Your task to perform on an android device: check storage Image 0: 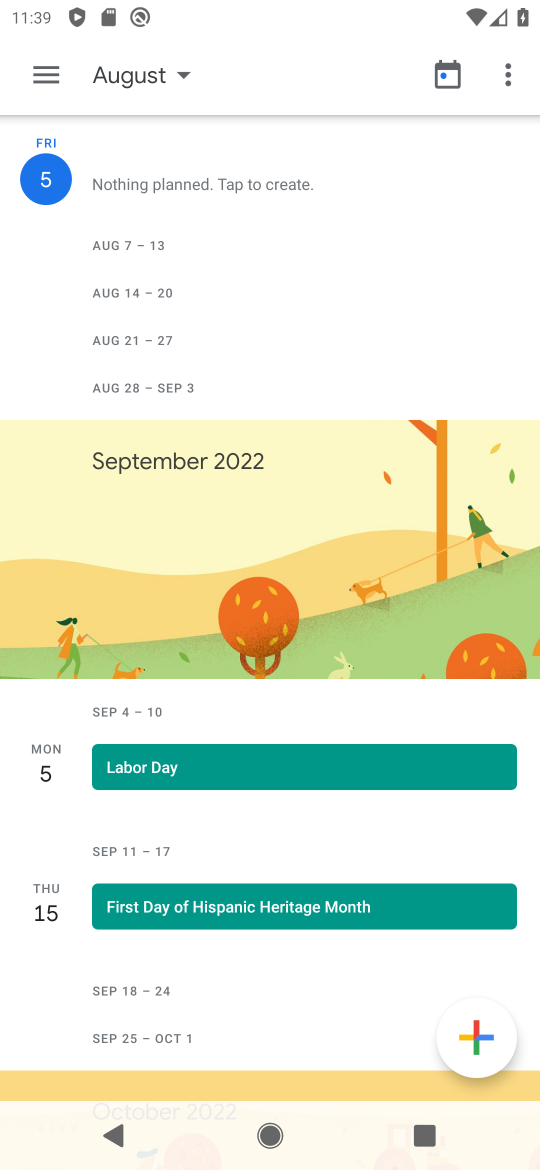
Step 0: press home button
Your task to perform on an android device: check storage Image 1: 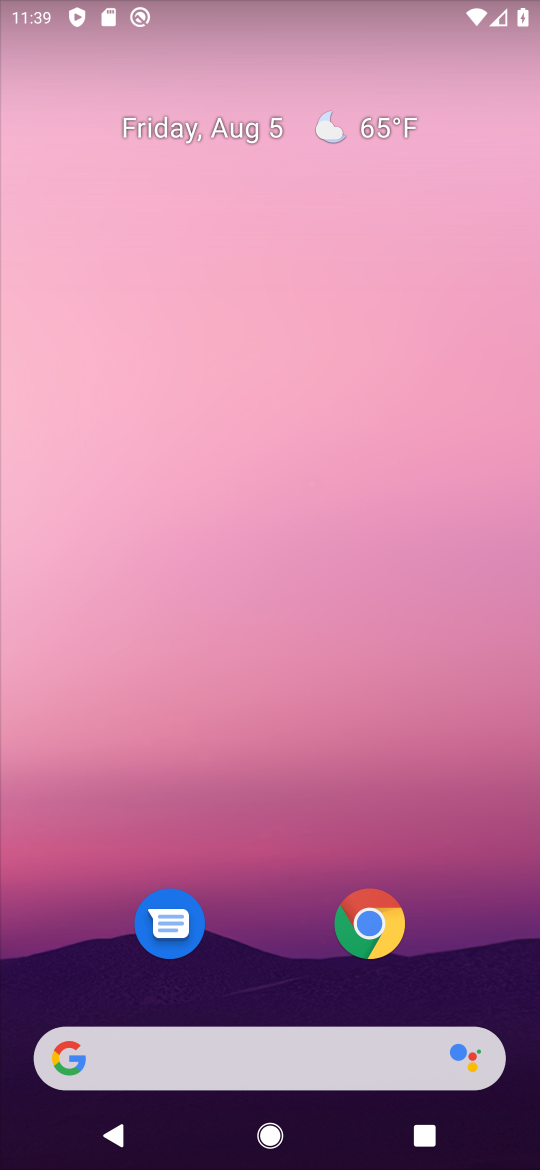
Step 1: drag from (484, 992) to (257, 154)
Your task to perform on an android device: check storage Image 2: 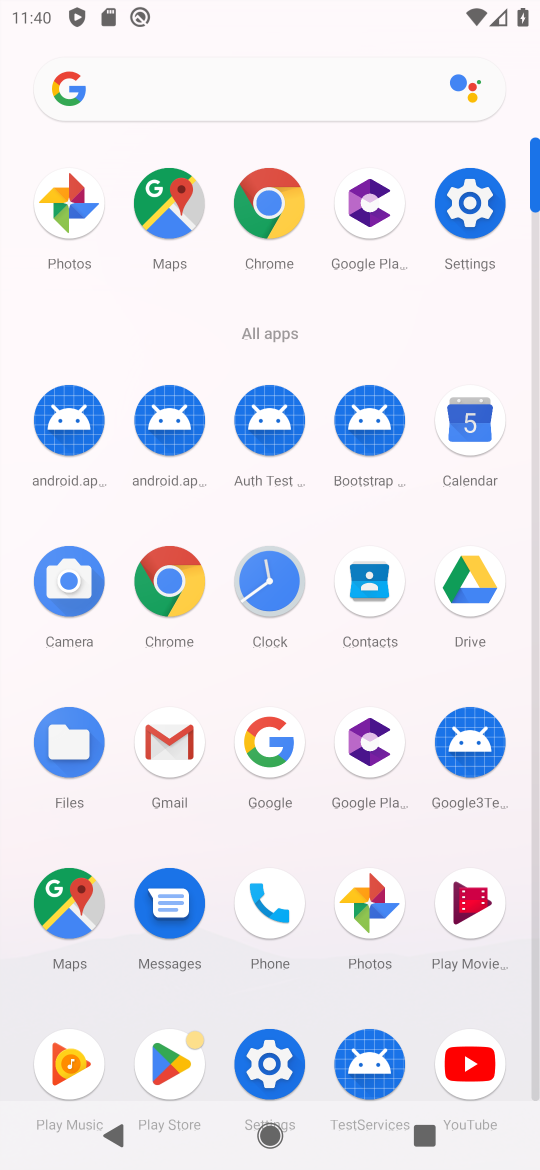
Step 2: click (463, 217)
Your task to perform on an android device: check storage Image 3: 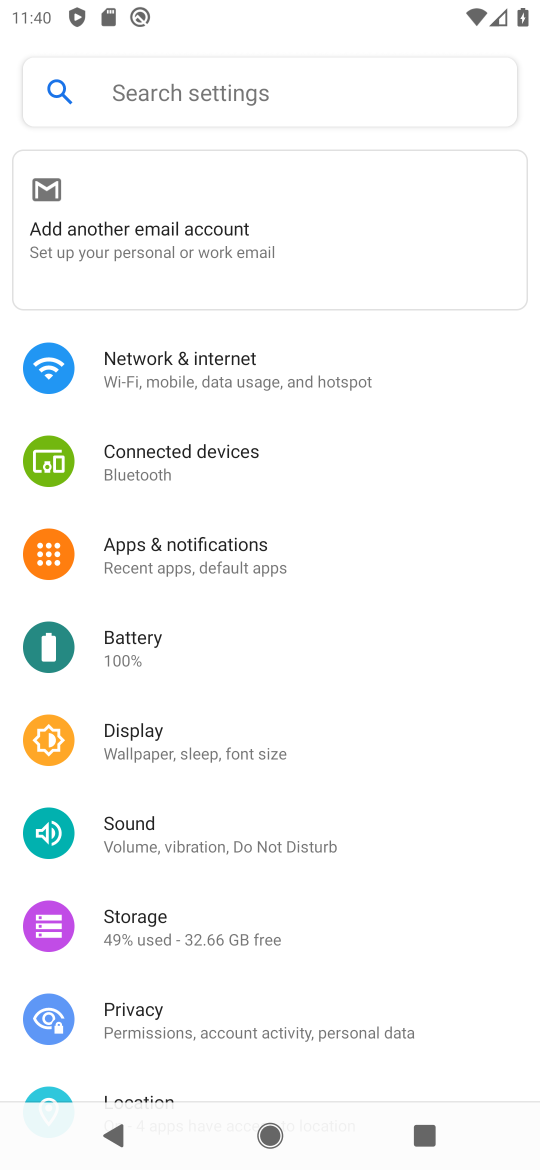
Step 3: click (177, 925)
Your task to perform on an android device: check storage Image 4: 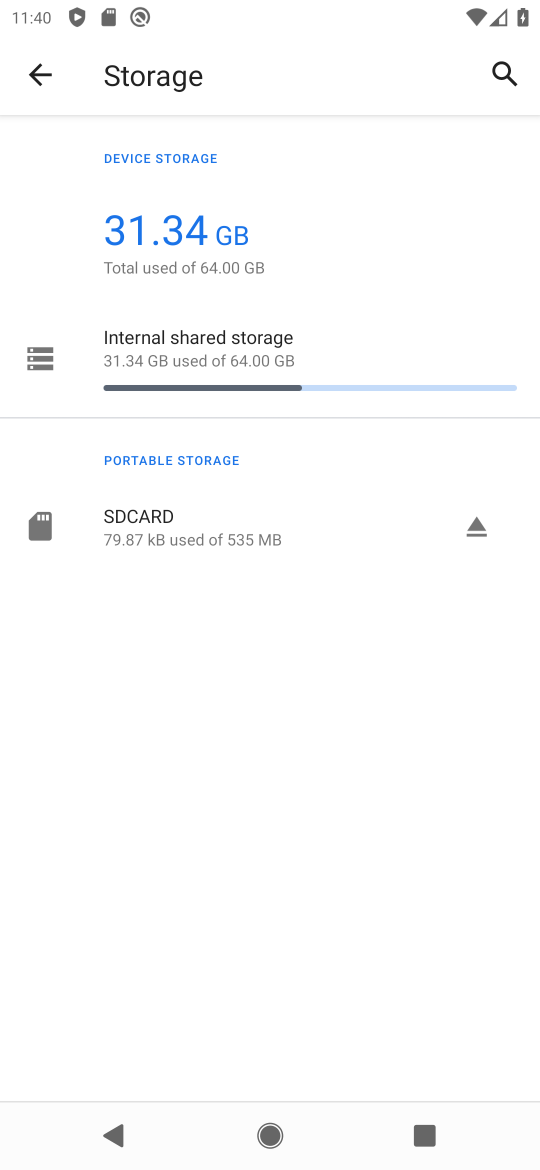
Step 4: task complete